Your task to perform on an android device: Open Google Chrome Image 0: 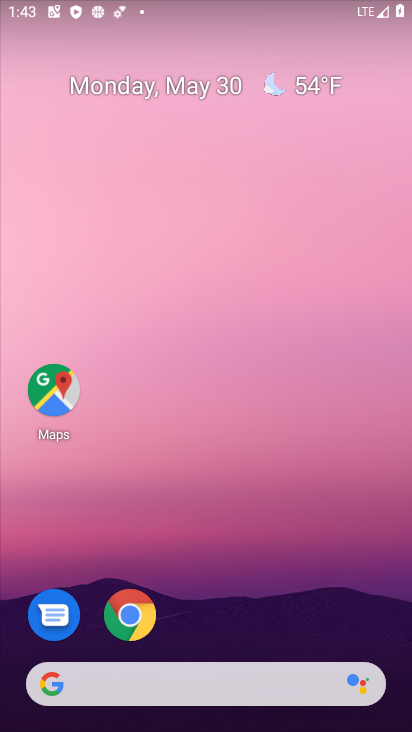
Step 0: click (134, 625)
Your task to perform on an android device: Open Google Chrome Image 1: 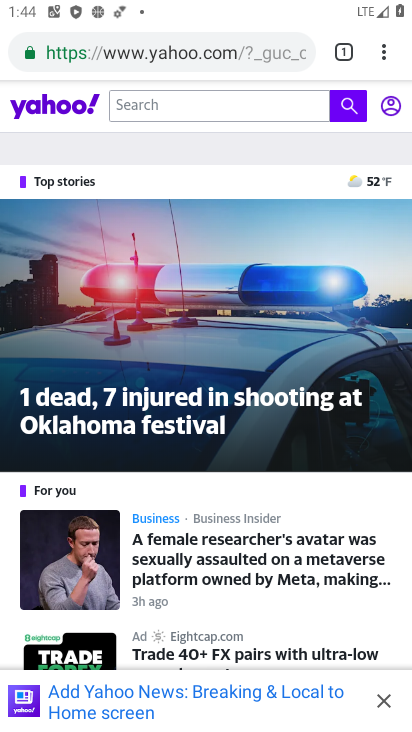
Step 1: task complete